Your task to perform on an android device: create a new album in the google photos Image 0: 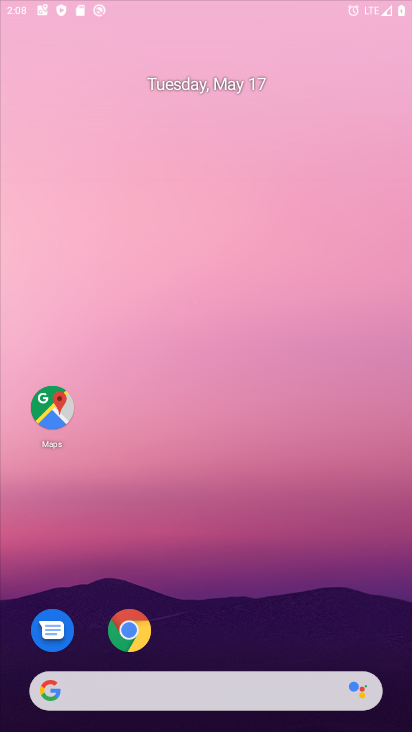
Step 0: drag from (384, 617) to (242, 173)
Your task to perform on an android device: create a new album in the google photos Image 1: 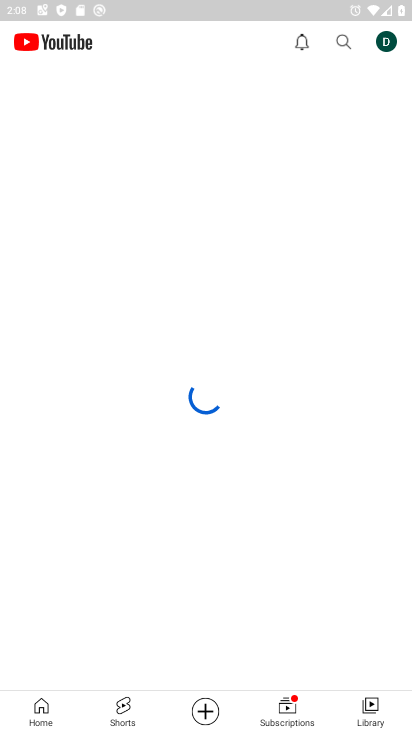
Step 1: press home button
Your task to perform on an android device: create a new album in the google photos Image 2: 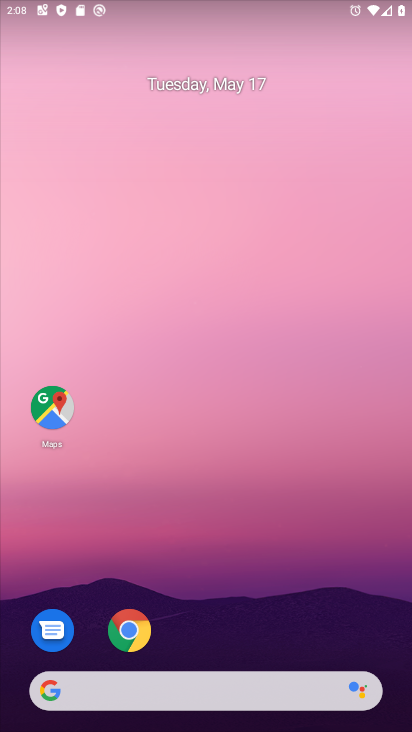
Step 2: drag from (370, 632) to (314, 140)
Your task to perform on an android device: create a new album in the google photos Image 3: 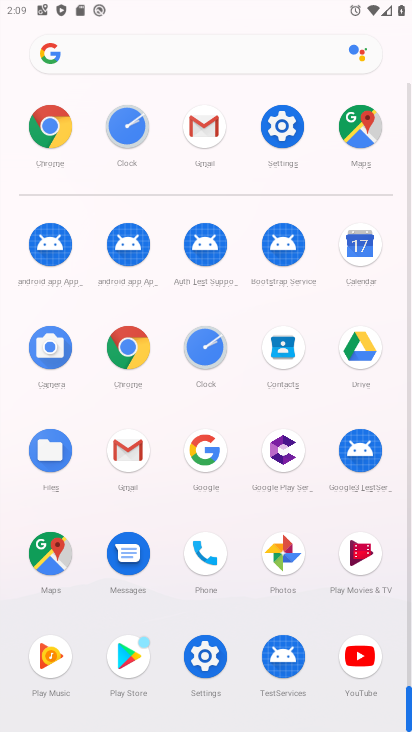
Step 3: click (280, 558)
Your task to perform on an android device: create a new album in the google photos Image 4: 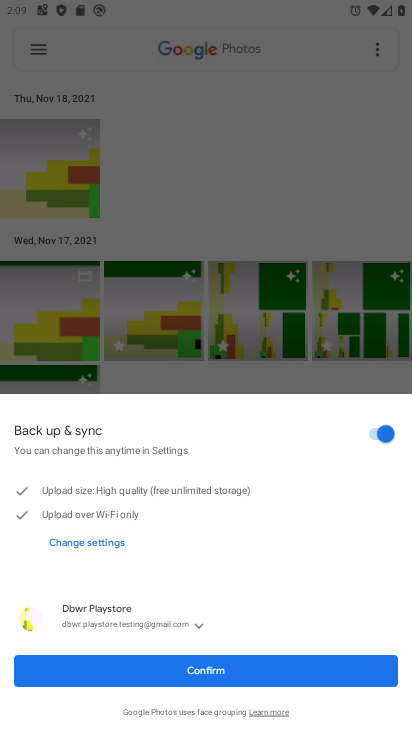
Step 4: click (241, 681)
Your task to perform on an android device: create a new album in the google photos Image 5: 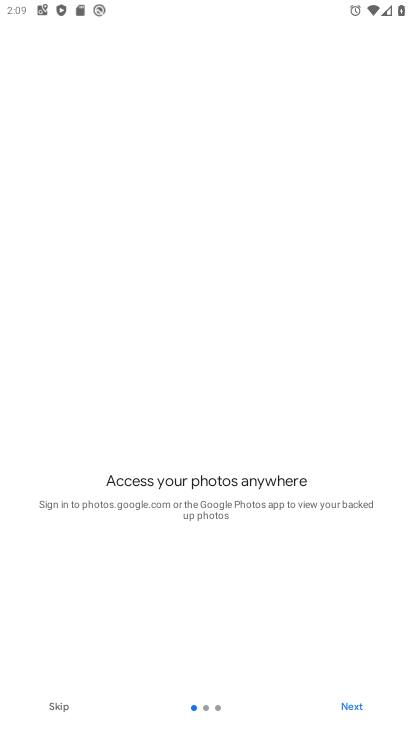
Step 5: click (363, 712)
Your task to perform on an android device: create a new album in the google photos Image 6: 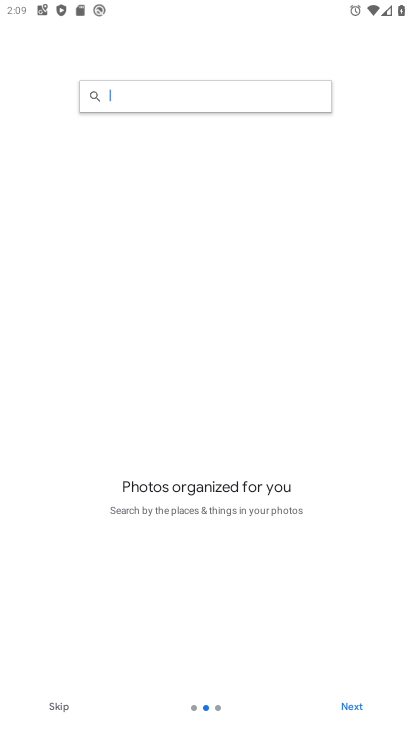
Step 6: click (362, 712)
Your task to perform on an android device: create a new album in the google photos Image 7: 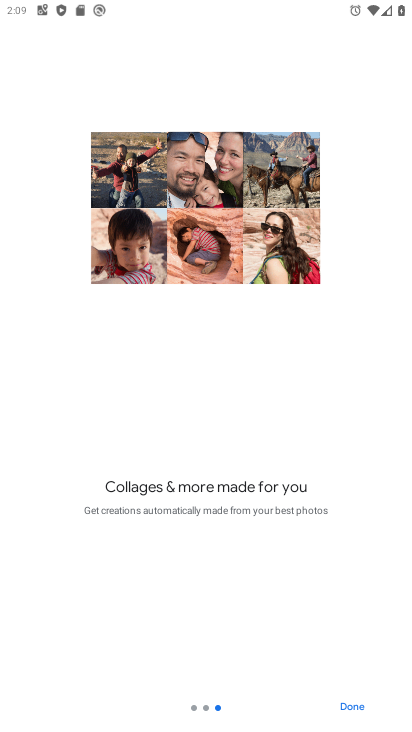
Step 7: click (362, 712)
Your task to perform on an android device: create a new album in the google photos Image 8: 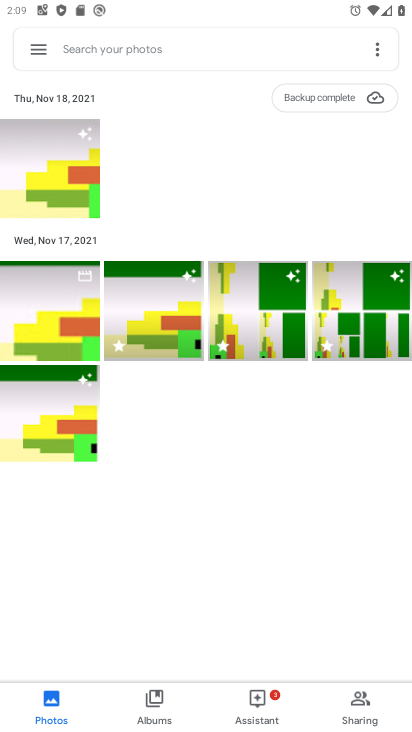
Step 8: click (155, 697)
Your task to perform on an android device: create a new album in the google photos Image 9: 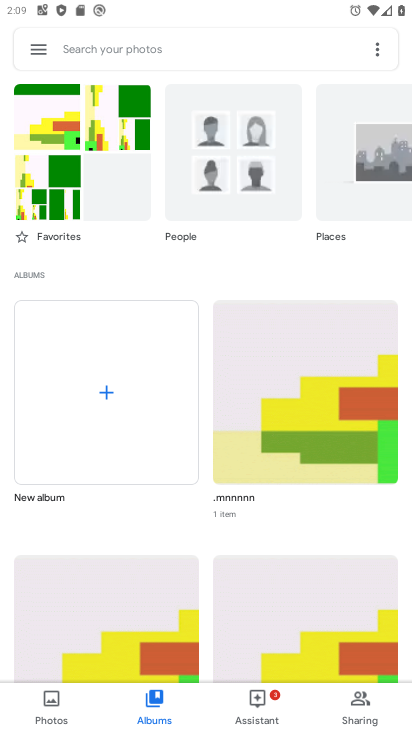
Step 9: click (108, 397)
Your task to perform on an android device: create a new album in the google photos Image 10: 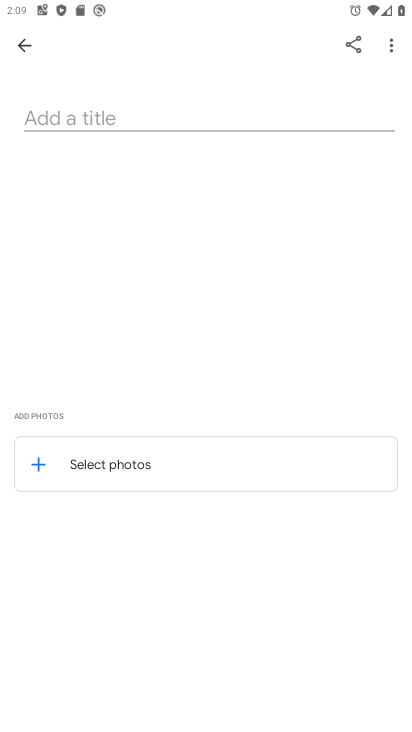
Step 10: click (110, 122)
Your task to perform on an android device: create a new album in the google photos Image 11: 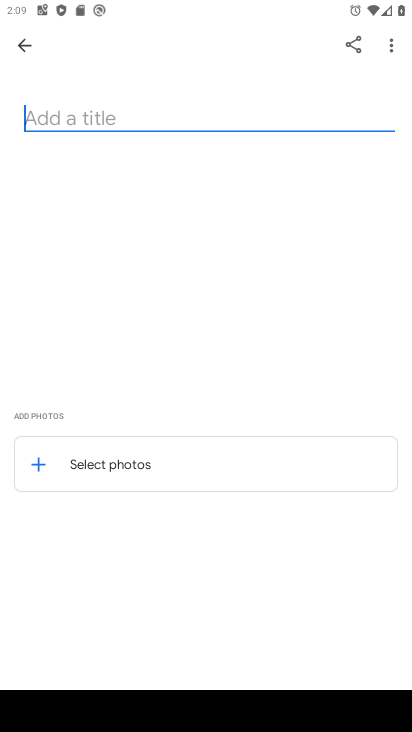
Step 11: type "iisidi"
Your task to perform on an android device: create a new album in the google photos Image 12: 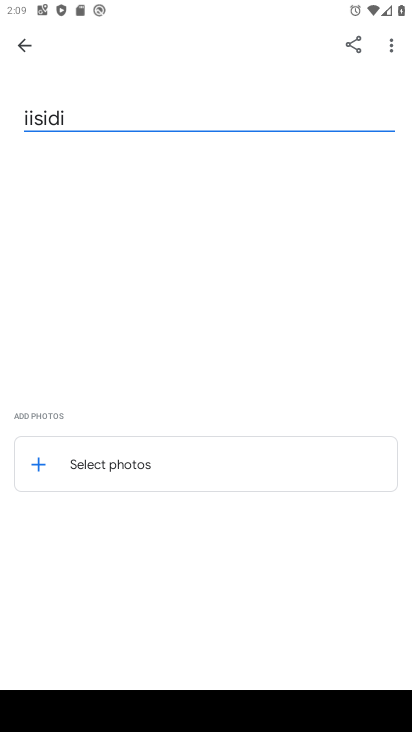
Step 12: click (37, 460)
Your task to perform on an android device: create a new album in the google photos Image 13: 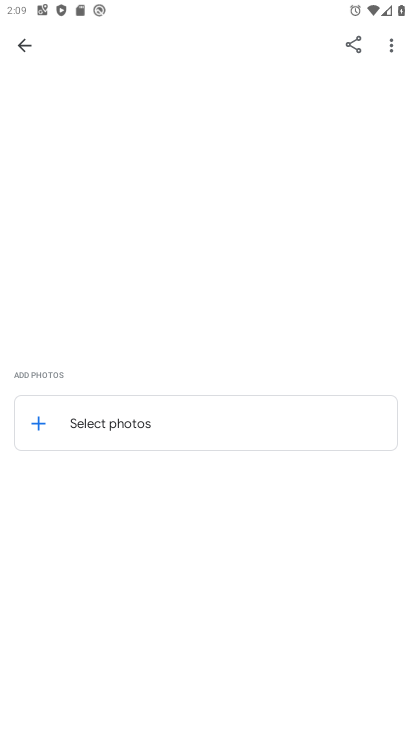
Step 13: click (38, 425)
Your task to perform on an android device: create a new album in the google photos Image 14: 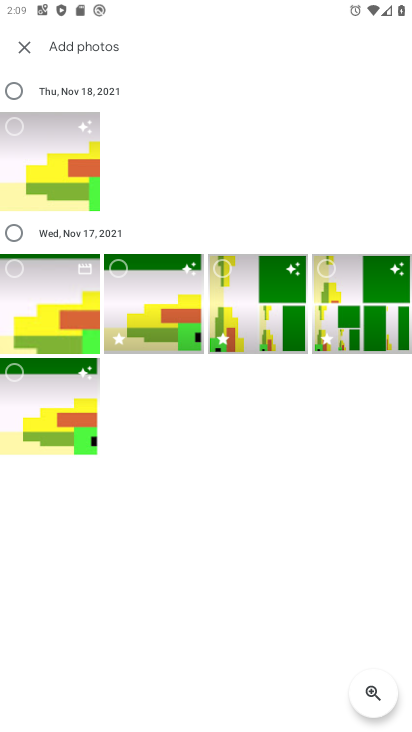
Step 14: click (16, 80)
Your task to perform on an android device: create a new album in the google photos Image 15: 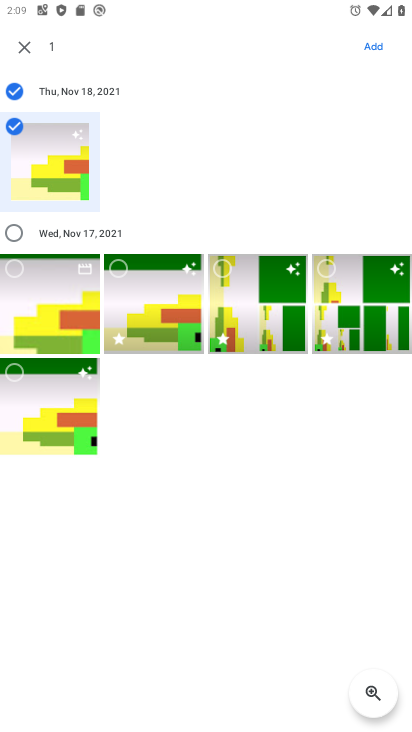
Step 15: click (367, 46)
Your task to perform on an android device: create a new album in the google photos Image 16: 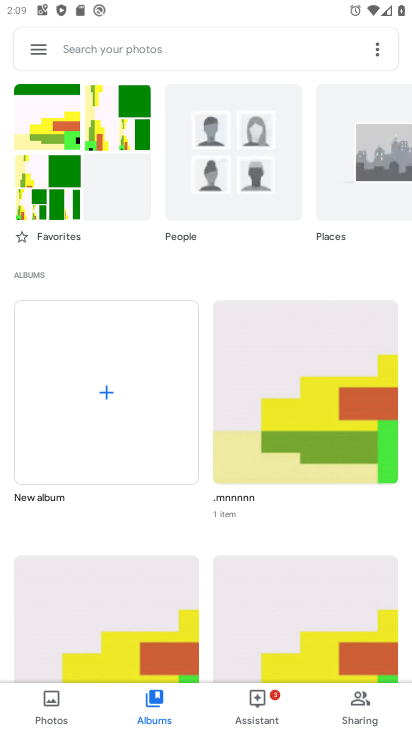
Step 16: task complete